Your task to perform on an android device: Go to Maps Image 0: 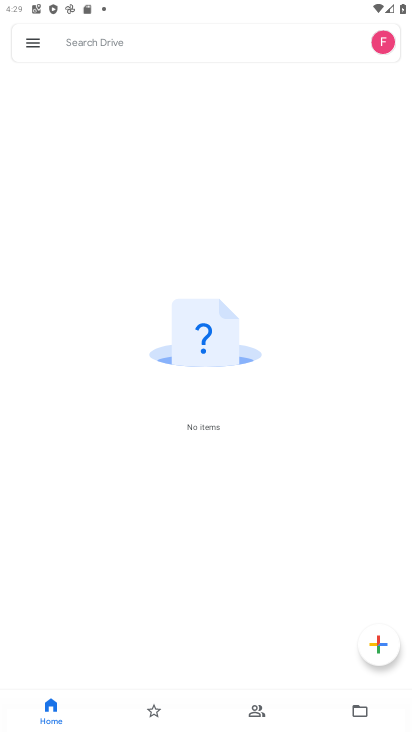
Step 0: press home button
Your task to perform on an android device: Go to Maps Image 1: 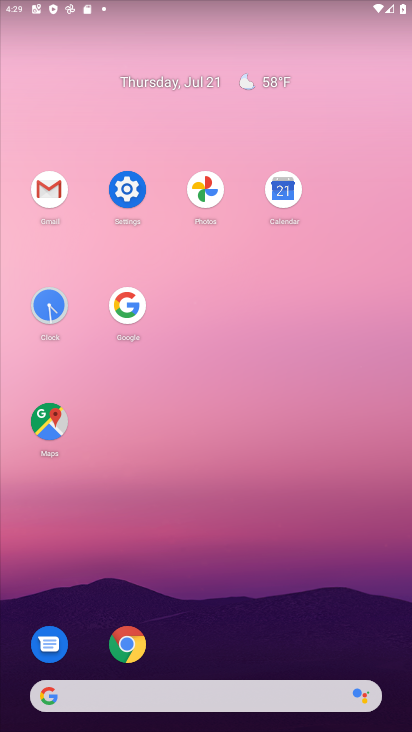
Step 1: click (52, 409)
Your task to perform on an android device: Go to Maps Image 2: 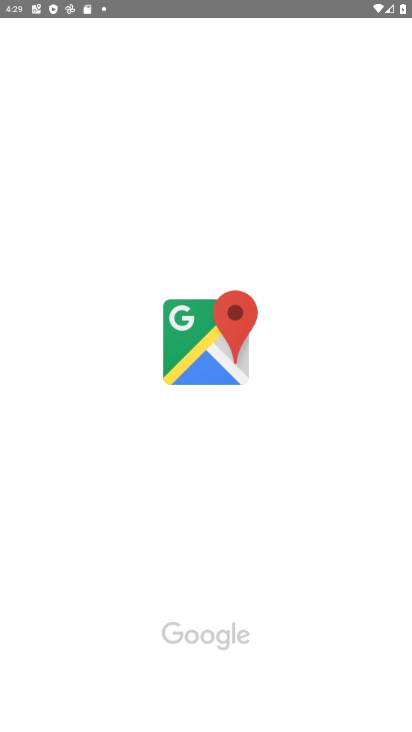
Step 2: task complete